Your task to perform on an android device: turn off sleep mode Image 0: 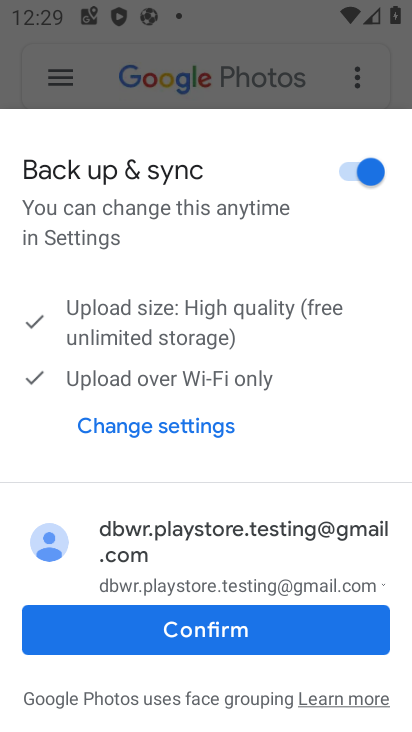
Step 0: click (278, 637)
Your task to perform on an android device: turn off sleep mode Image 1: 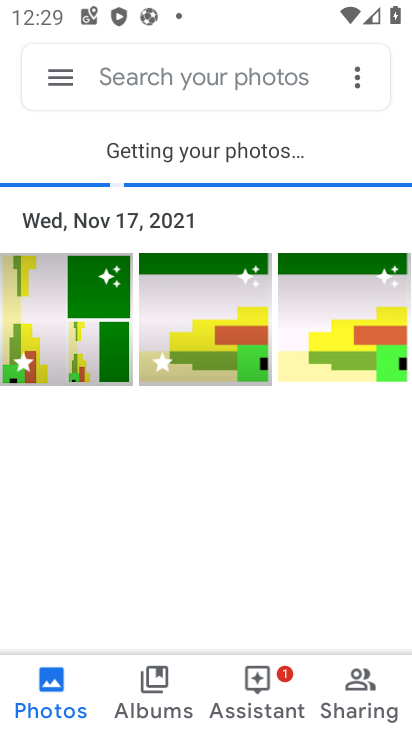
Step 1: press home button
Your task to perform on an android device: turn off sleep mode Image 2: 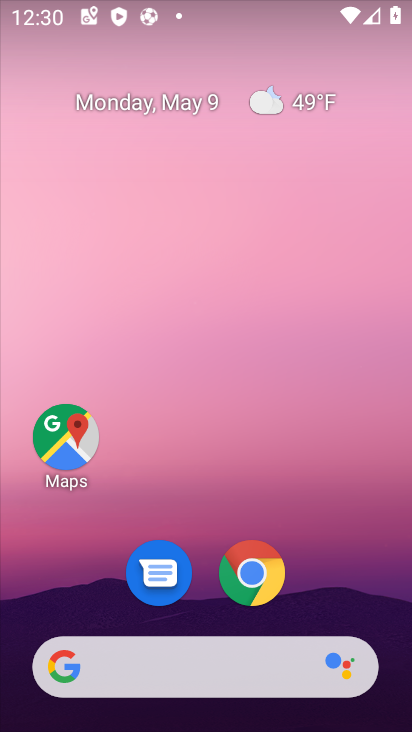
Step 2: drag from (234, 716) to (184, 27)
Your task to perform on an android device: turn off sleep mode Image 3: 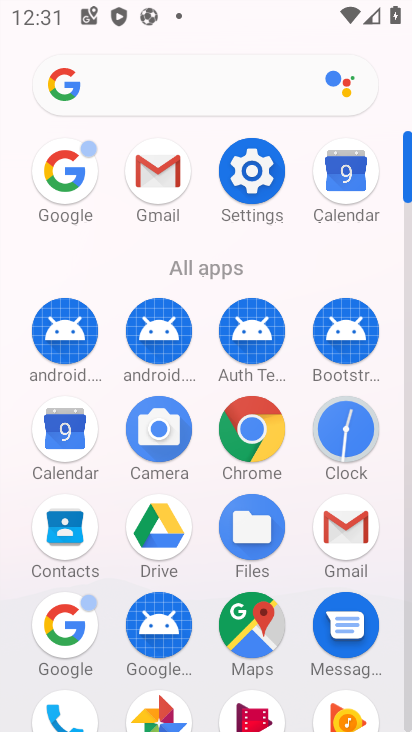
Step 3: click (259, 187)
Your task to perform on an android device: turn off sleep mode Image 4: 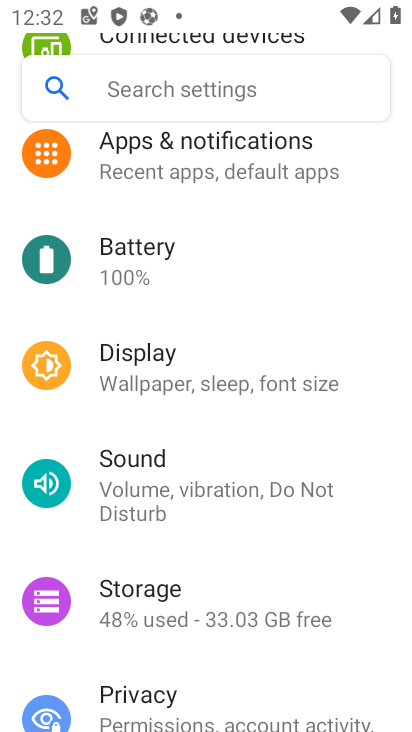
Step 4: click (291, 380)
Your task to perform on an android device: turn off sleep mode Image 5: 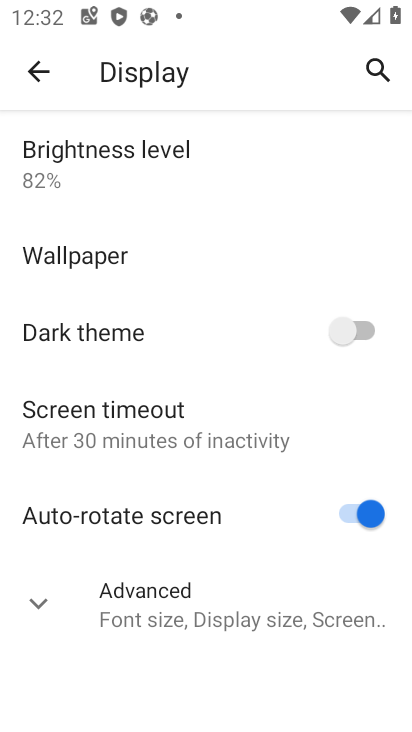
Step 5: task complete